Your task to perform on an android device: Open settings on Google Maps Image 0: 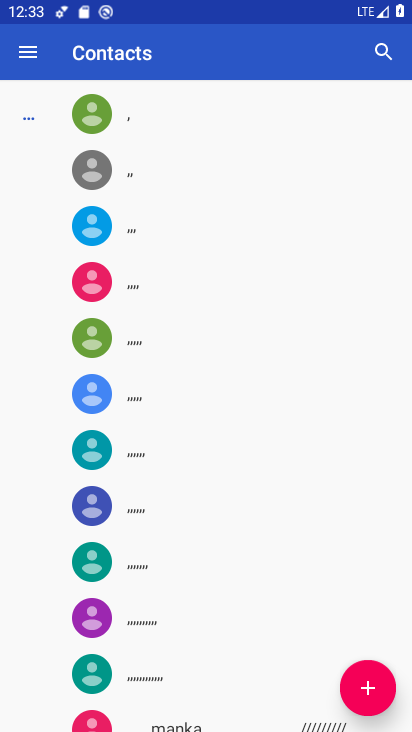
Step 0: press home button
Your task to perform on an android device: Open settings on Google Maps Image 1: 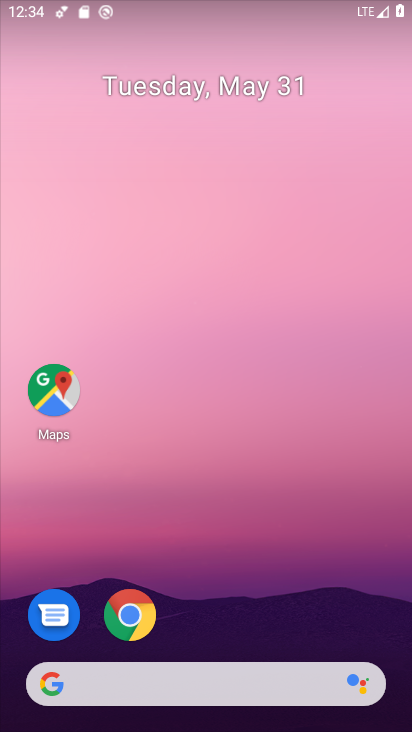
Step 1: click (48, 385)
Your task to perform on an android device: Open settings on Google Maps Image 2: 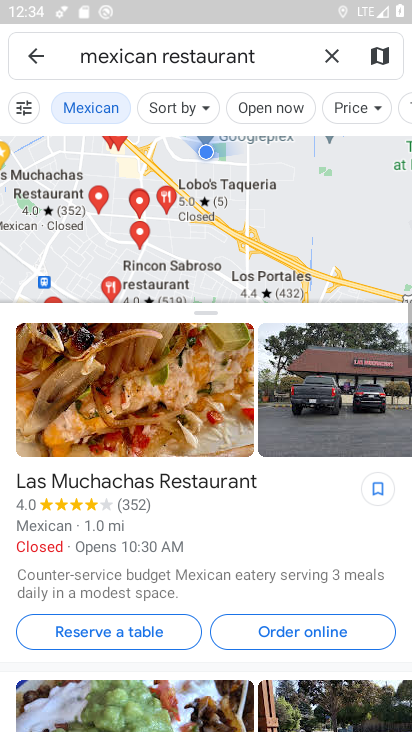
Step 2: click (32, 50)
Your task to perform on an android device: Open settings on Google Maps Image 3: 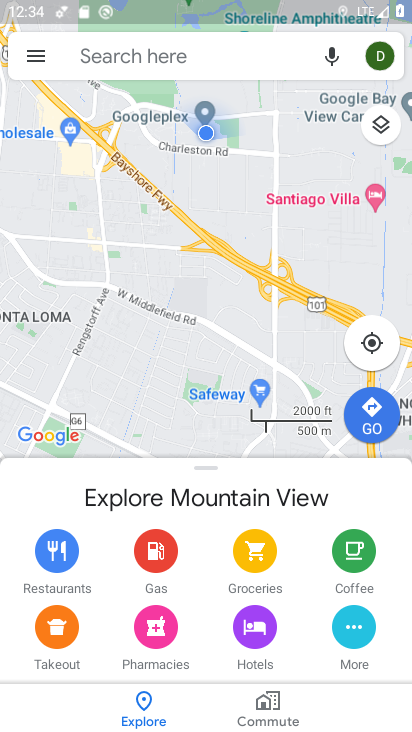
Step 3: click (32, 50)
Your task to perform on an android device: Open settings on Google Maps Image 4: 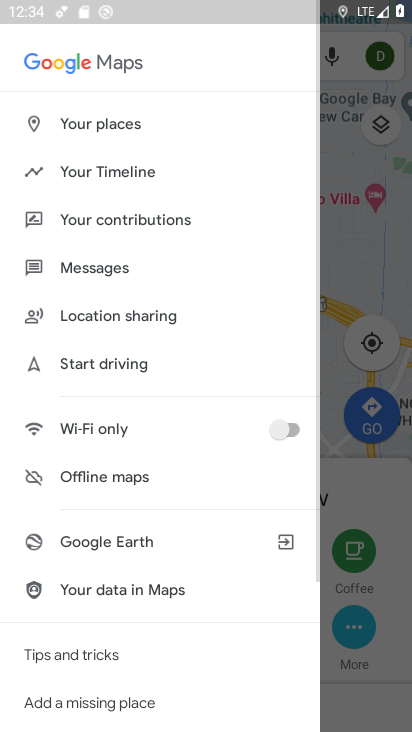
Step 4: drag from (67, 673) to (116, 517)
Your task to perform on an android device: Open settings on Google Maps Image 5: 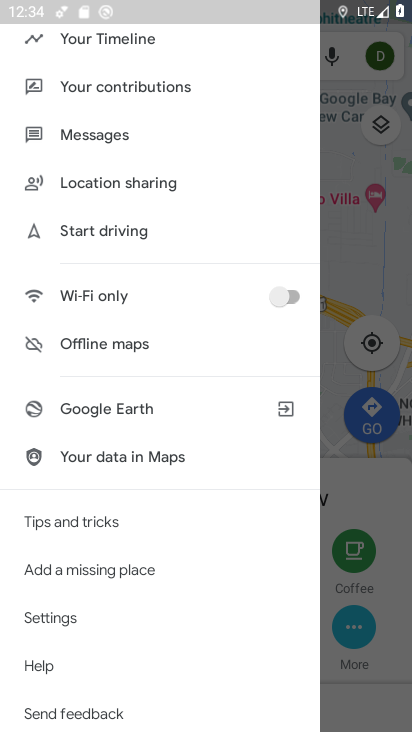
Step 5: click (67, 623)
Your task to perform on an android device: Open settings on Google Maps Image 6: 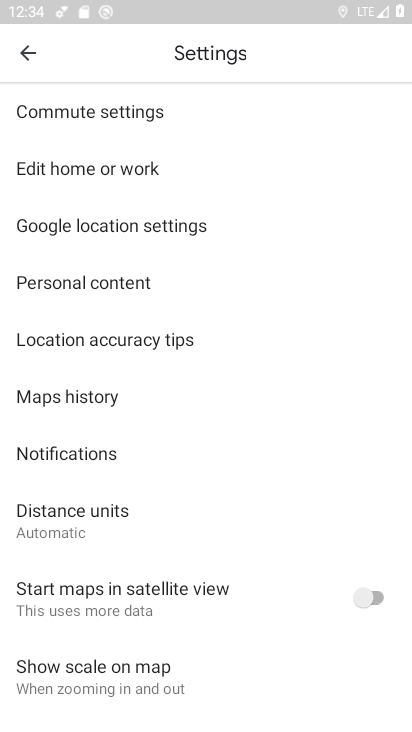
Step 6: task complete